Your task to perform on an android device: check out phone information Image 0: 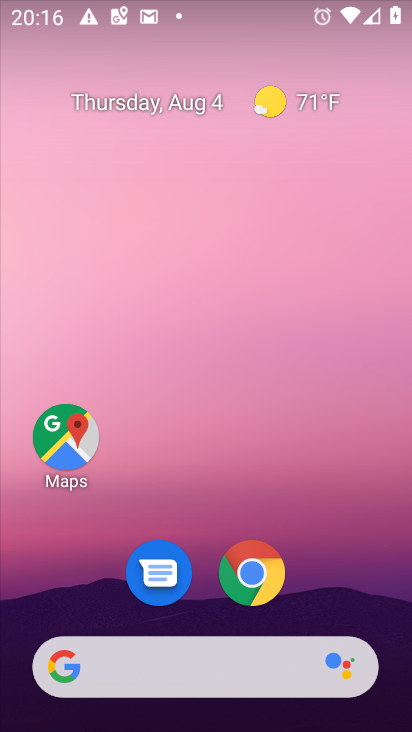
Step 0: drag from (237, 667) to (278, 95)
Your task to perform on an android device: check out phone information Image 1: 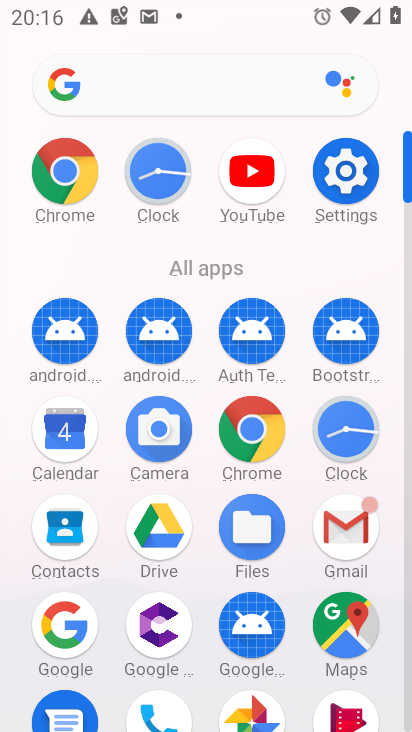
Step 1: click (334, 175)
Your task to perform on an android device: check out phone information Image 2: 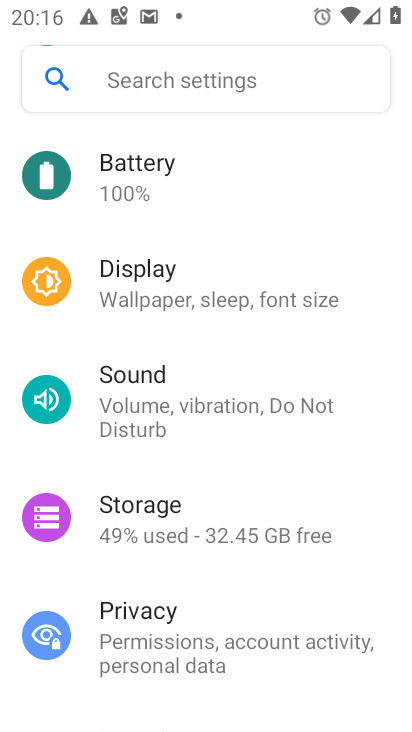
Step 2: drag from (163, 462) to (1, 372)
Your task to perform on an android device: check out phone information Image 3: 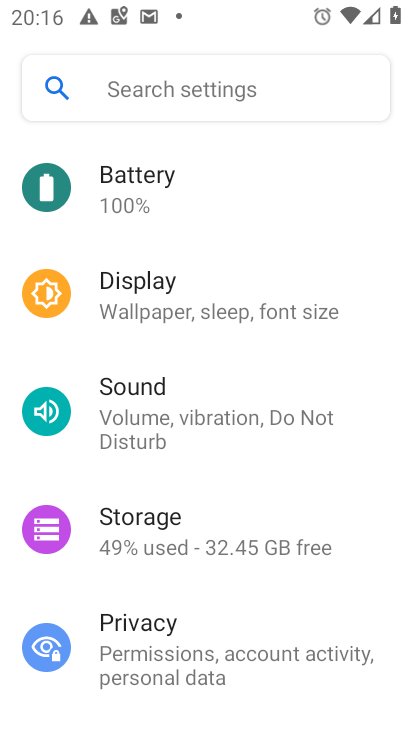
Step 3: drag from (180, 629) to (178, 79)
Your task to perform on an android device: check out phone information Image 4: 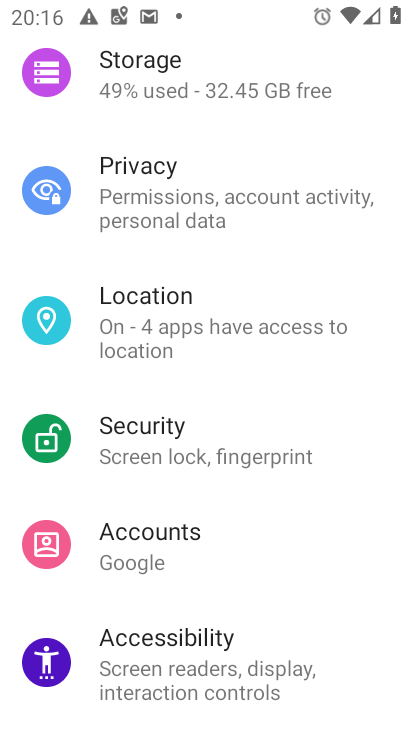
Step 4: drag from (178, 640) to (41, 32)
Your task to perform on an android device: check out phone information Image 5: 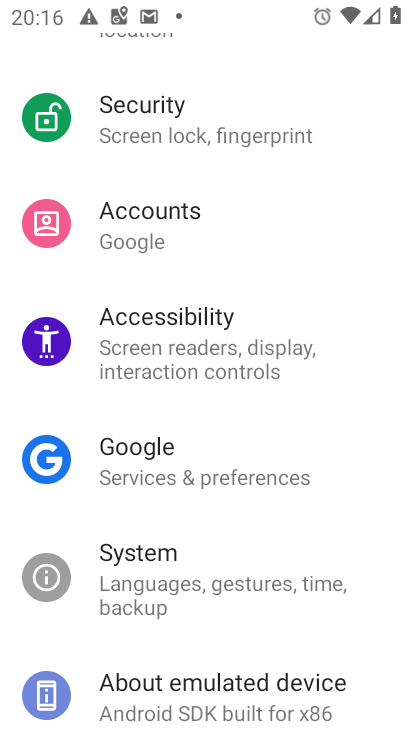
Step 5: click (161, 676)
Your task to perform on an android device: check out phone information Image 6: 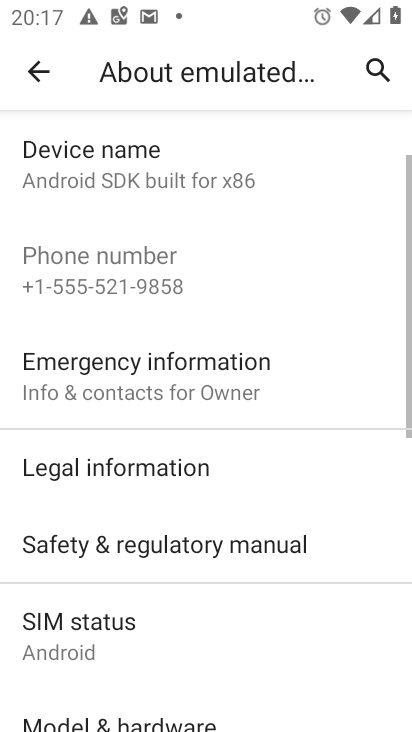
Step 6: task complete